Your task to perform on an android device: delete location history Image 0: 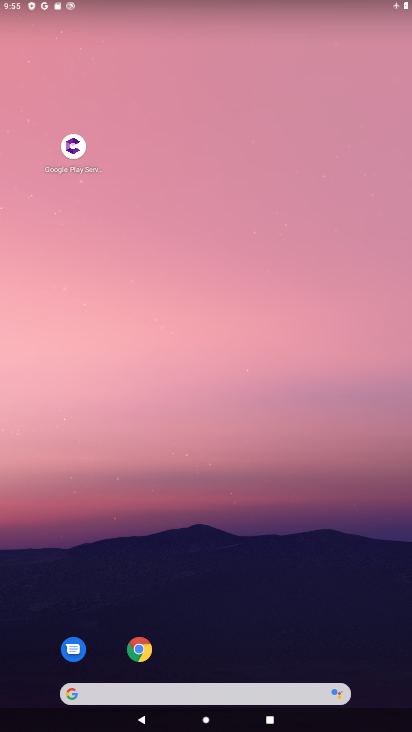
Step 0: drag from (214, 560) to (214, 233)
Your task to perform on an android device: delete location history Image 1: 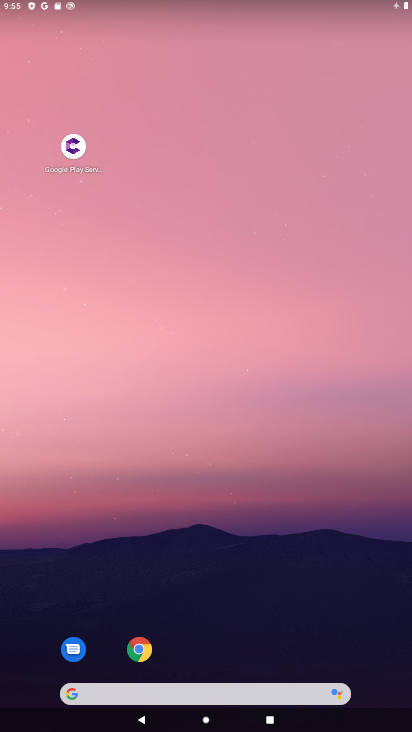
Step 1: drag from (228, 656) to (201, 296)
Your task to perform on an android device: delete location history Image 2: 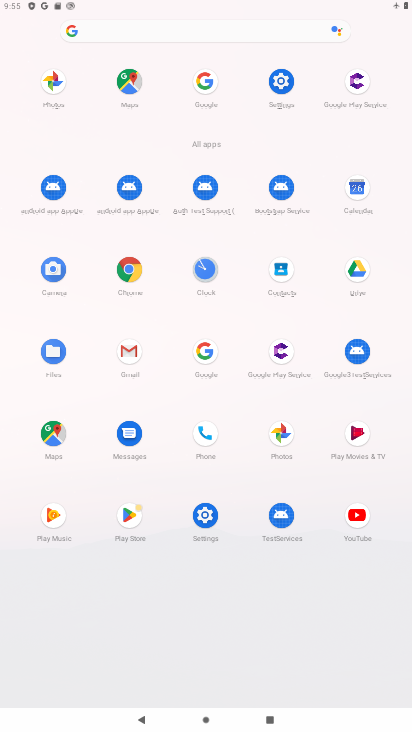
Step 2: click (278, 89)
Your task to perform on an android device: delete location history Image 3: 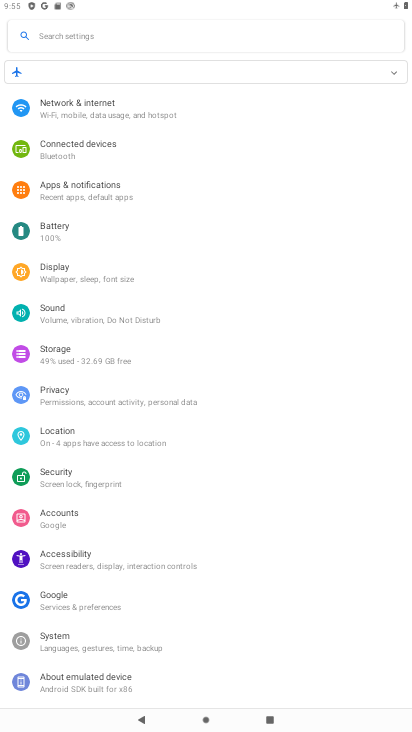
Step 3: click (57, 433)
Your task to perform on an android device: delete location history Image 4: 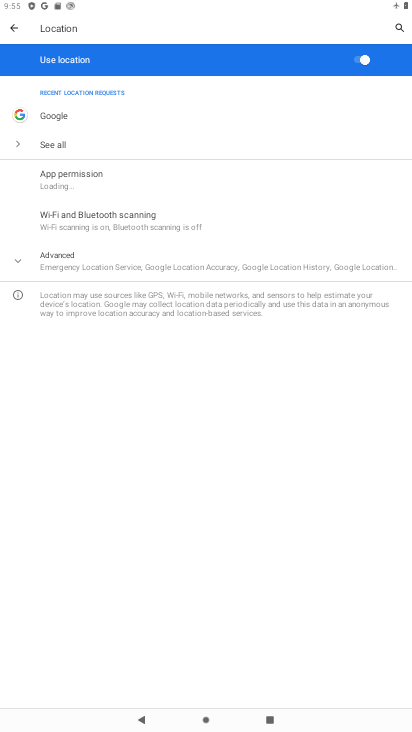
Step 4: click (43, 253)
Your task to perform on an android device: delete location history Image 5: 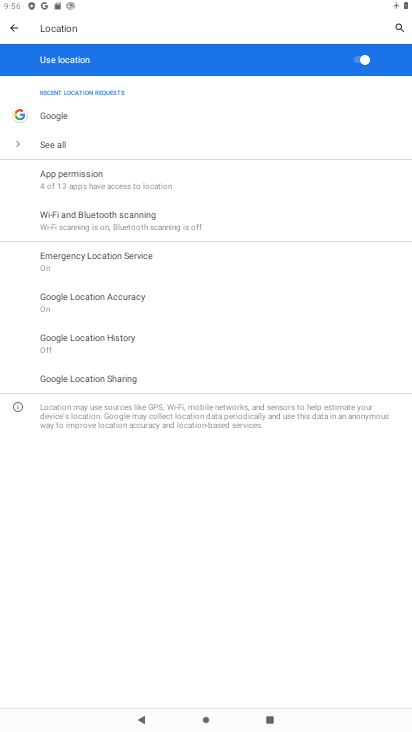
Step 5: click (68, 343)
Your task to perform on an android device: delete location history Image 6: 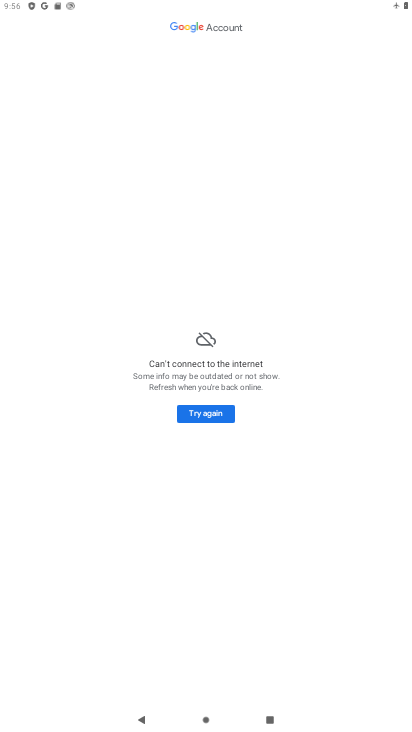
Step 6: click (183, 416)
Your task to perform on an android device: delete location history Image 7: 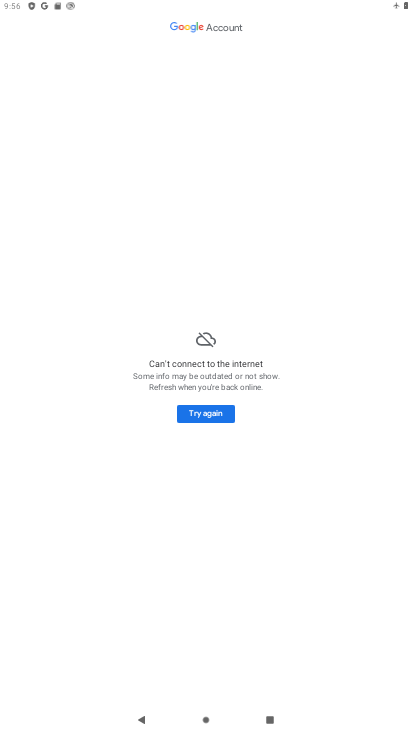
Step 7: task complete